Your task to perform on an android device: How do I get to the nearest Starbucks? Image 0: 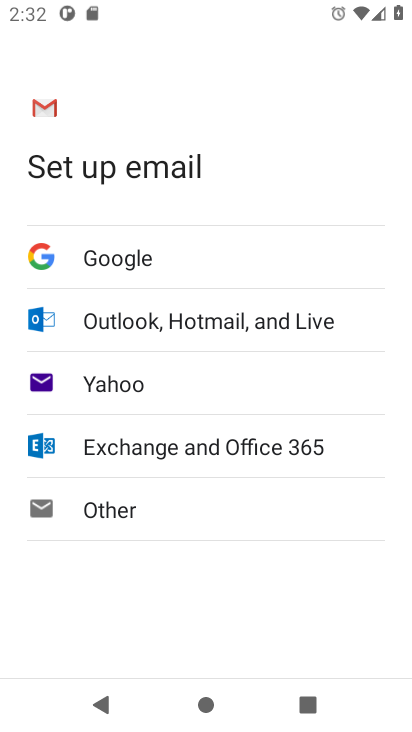
Step 0: press home button
Your task to perform on an android device: How do I get to the nearest Starbucks? Image 1: 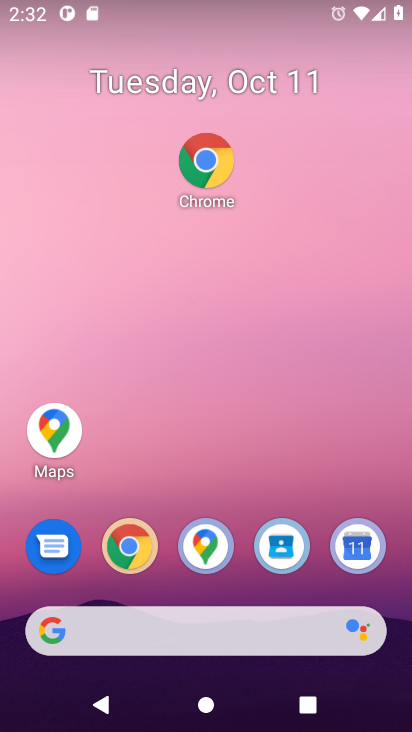
Step 1: click (129, 550)
Your task to perform on an android device: How do I get to the nearest Starbucks? Image 2: 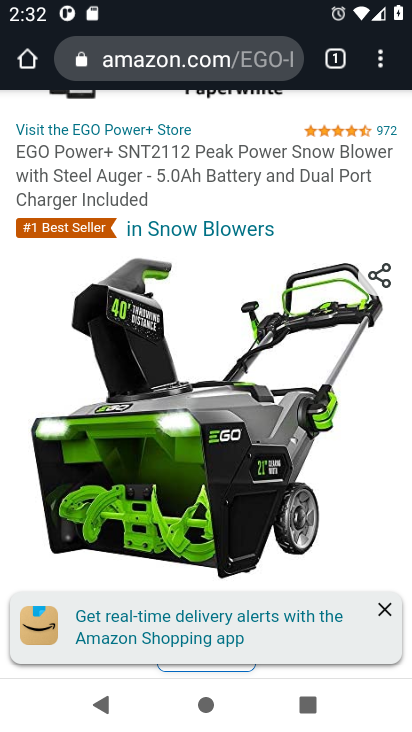
Step 2: click (207, 65)
Your task to perform on an android device: How do I get to the nearest Starbucks? Image 3: 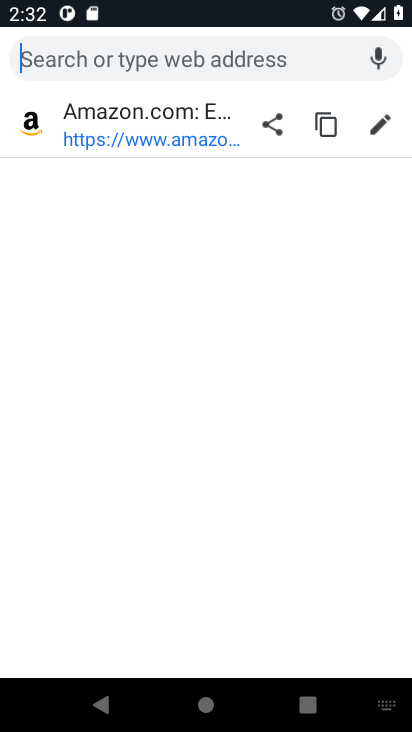
Step 3: type "starbucks near me"
Your task to perform on an android device: How do I get to the nearest Starbucks? Image 4: 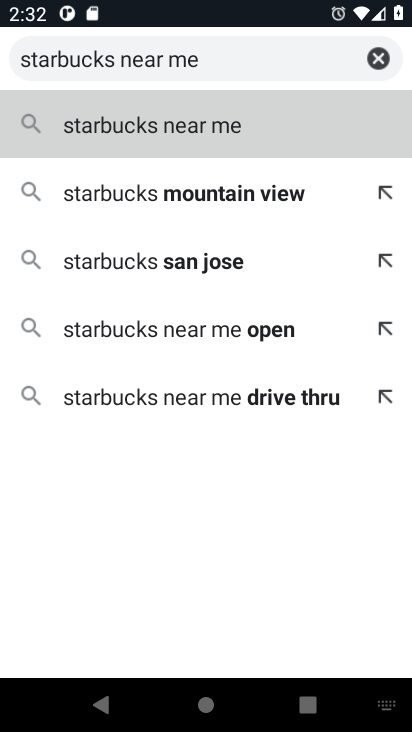
Step 4: press enter
Your task to perform on an android device: How do I get to the nearest Starbucks? Image 5: 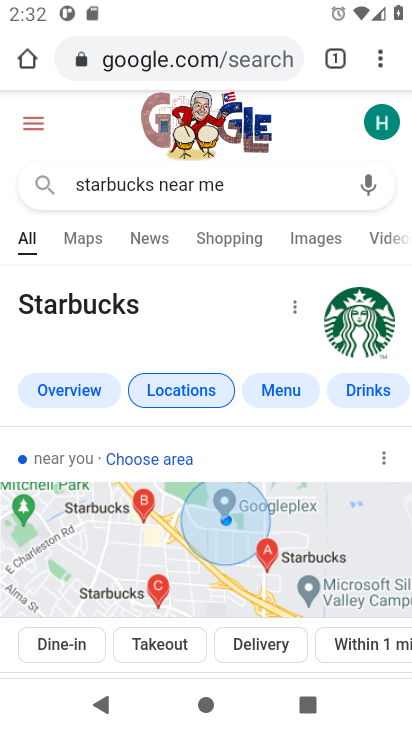
Step 5: drag from (253, 503) to (237, 196)
Your task to perform on an android device: How do I get to the nearest Starbucks? Image 6: 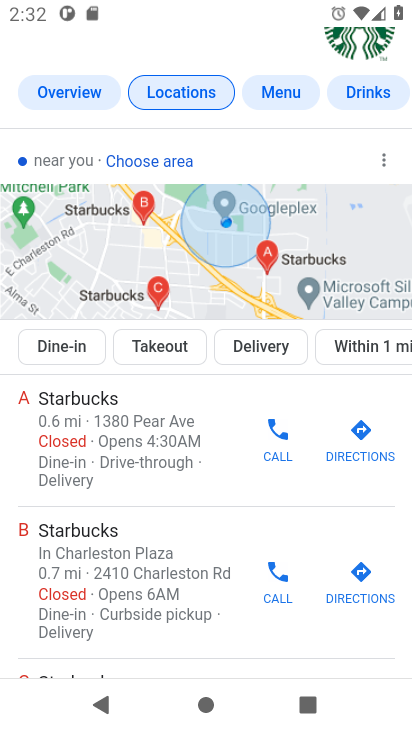
Step 6: drag from (264, 595) to (302, 289)
Your task to perform on an android device: How do I get to the nearest Starbucks? Image 7: 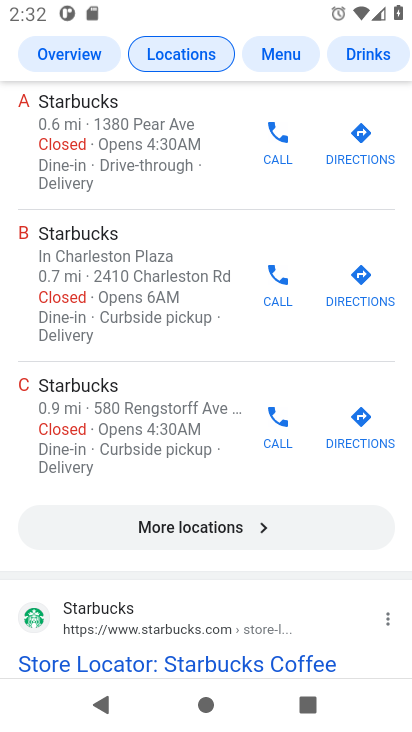
Step 7: drag from (268, 559) to (269, 370)
Your task to perform on an android device: How do I get to the nearest Starbucks? Image 8: 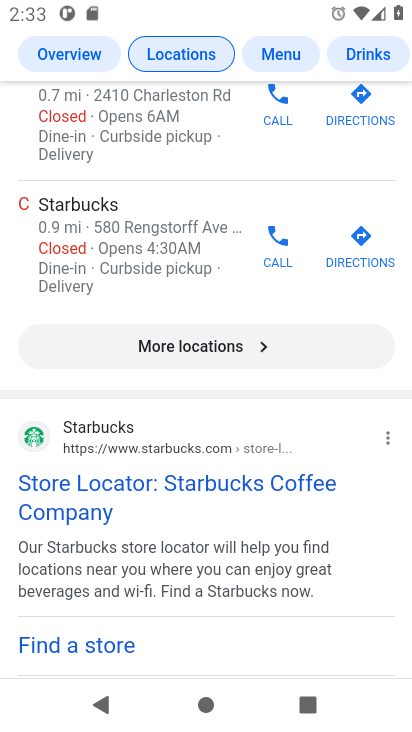
Step 8: click (86, 483)
Your task to perform on an android device: How do I get to the nearest Starbucks? Image 9: 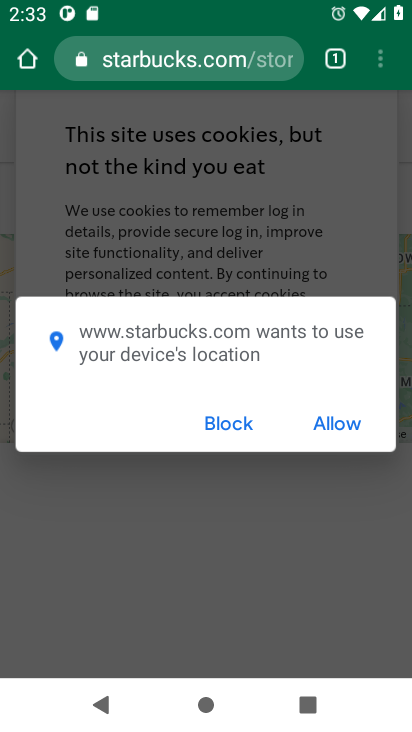
Step 9: click (347, 431)
Your task to perform on an android device: How do I get to the nearest Starbucks? Image 10: 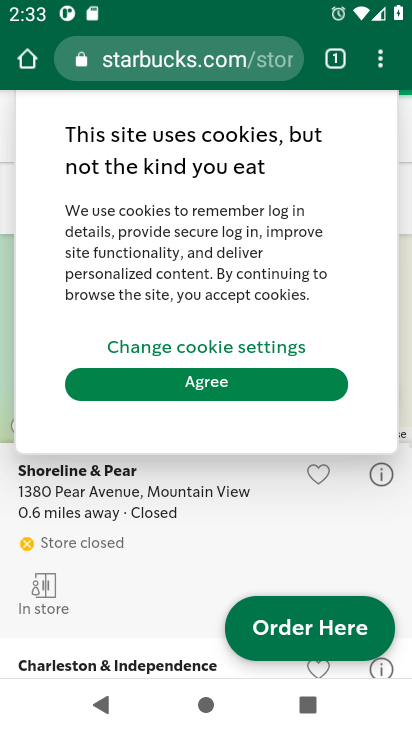
Step 10: click (240, 387)
Your task to perform on an android device: How do I get to the nearest Starbucks? Image 11: 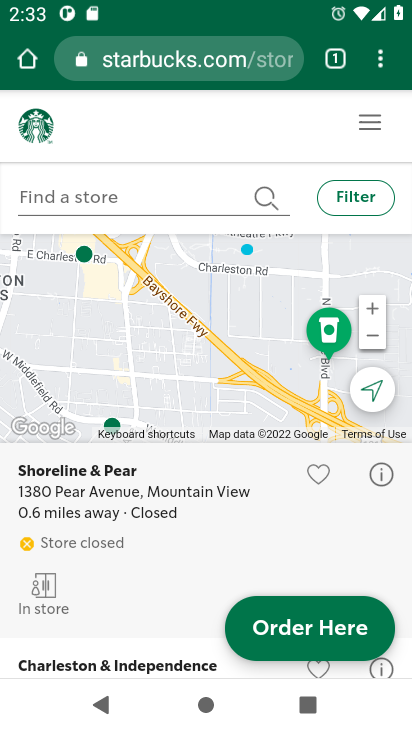
Step 11: task complete